Your task to perform on an android device: Open display settings Image 0: 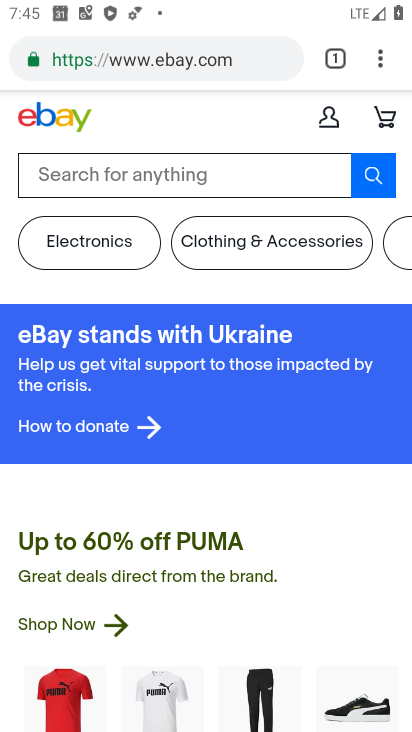
Step 0: press home button
Your task to perform on an android device: Open display settings Image 1: 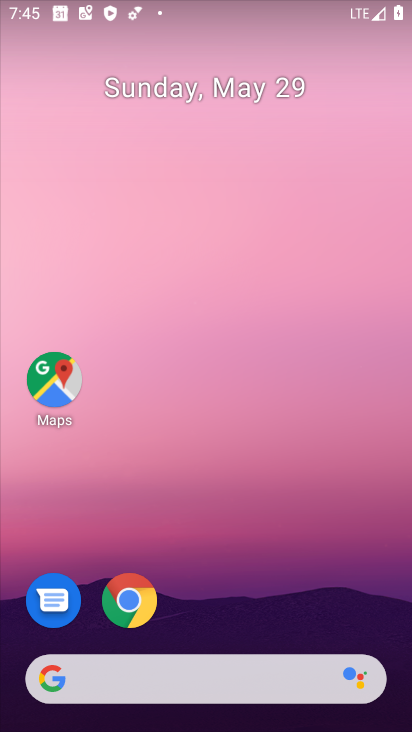
Step 1: drag from (193, 608) to (219, 1)
Your task to perform on an android device: Open display settings Image 2: 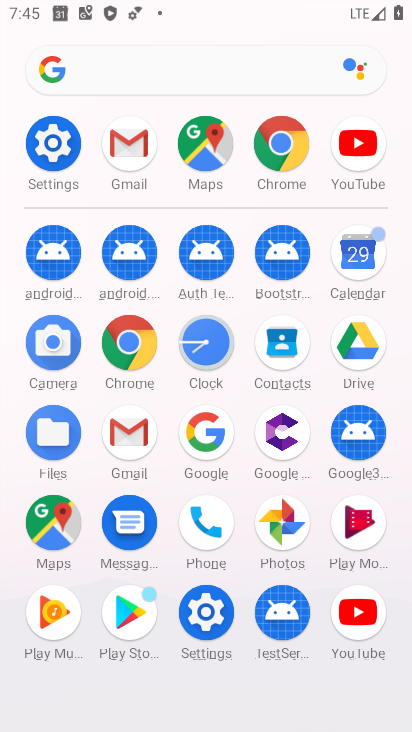
Step 2: click (59, 155)
Your task to perform on an android device: Open display settings Image 3: 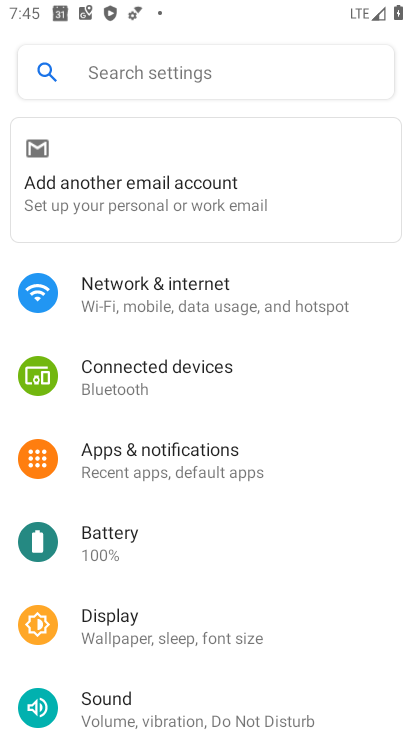
Step 3: click (155, 622)
Your task to perform on an android device: Open display settings Image 4: 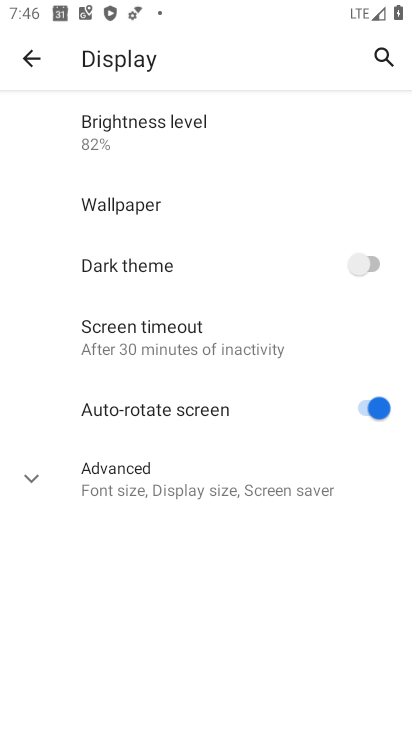
Step 4: task complete